Your task to perform on an android device: Open Google Chrome Image 0: 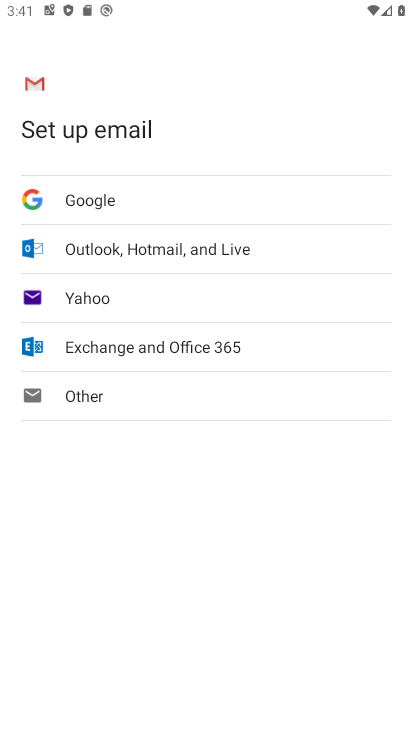
Step 0: press home button
Your task to perform on an android device: Open Google Chrome Image 1: 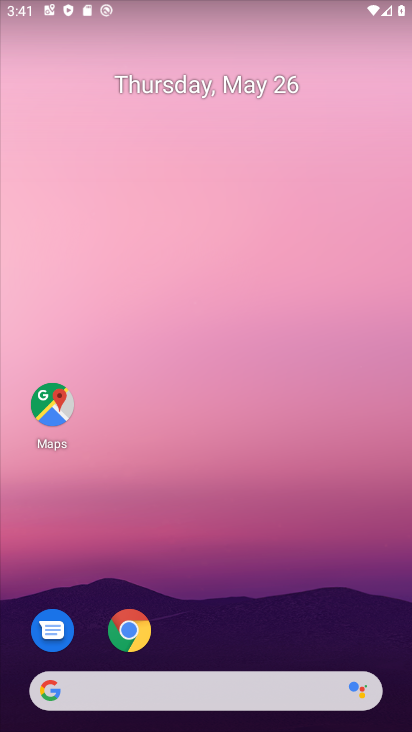
Step 1: click (128, 630)
Your task to perform on an android device: Open Google Chrome Image 2: 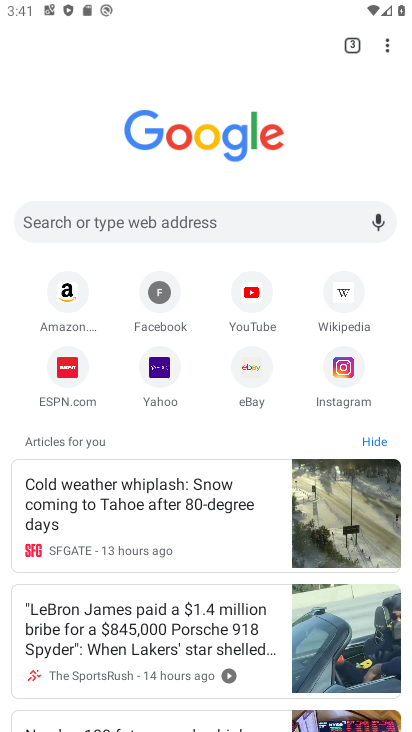
Step 2: task complete